Your task to perform on an android device: allow cookies in the chrome app Image 0: 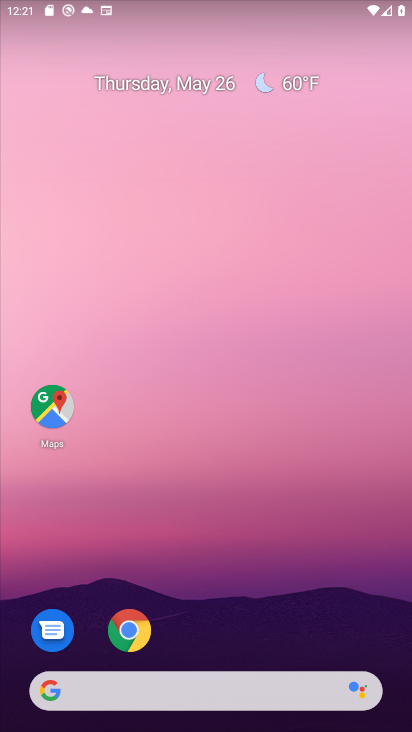
Step 0: drag from (286, 615) to (270, 173)
Your task to perform on an android device: allow cookies in the chrome app Image 1: 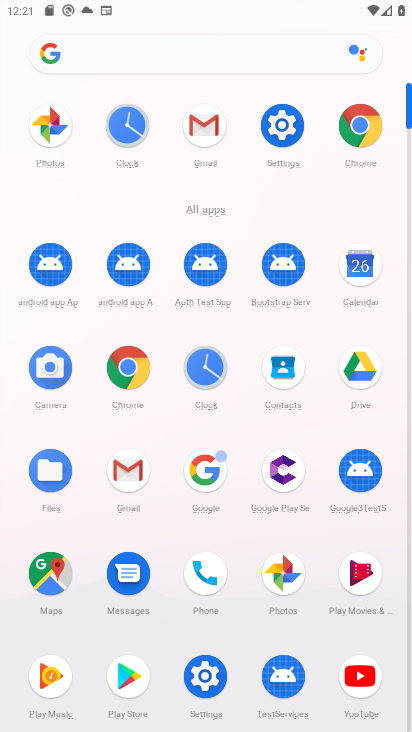
Step 1: click (373, 135)
Your task to perform on an android device: allow cookies in the chrome app Image 2: 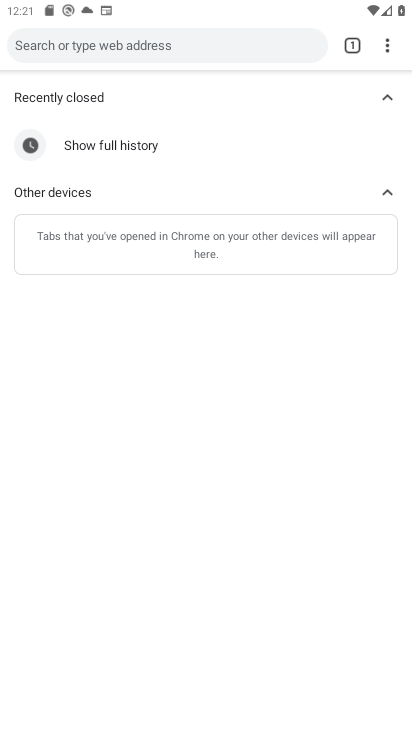
Step 2: drag from (386, 45) to (235, 423)
Your task to perform on an android device: allow cookies in the chrome app Image 3: 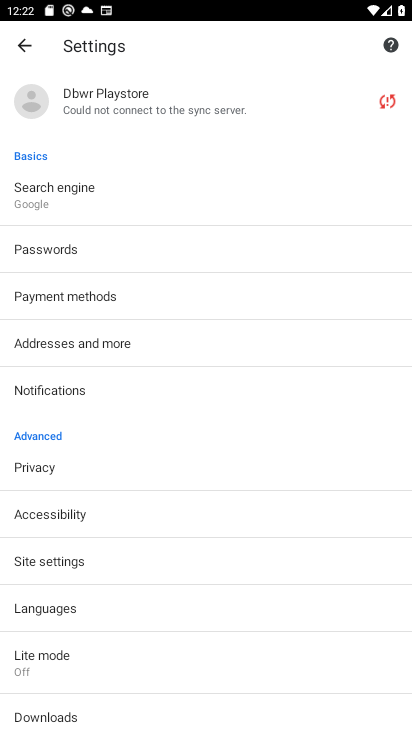
Step 3: click (90, 562)
Your task to perform on an android device: allow cookies in the chrome app Image 4: 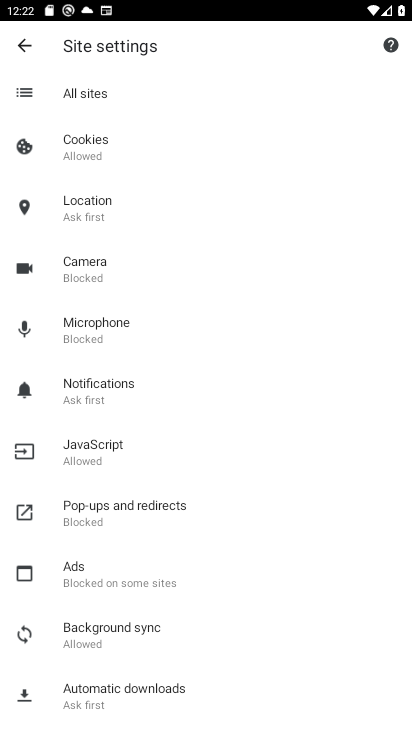
Step 4: click (61, 155)
Your task to perform on an android device: allow cookies in the chrome app Image 5: 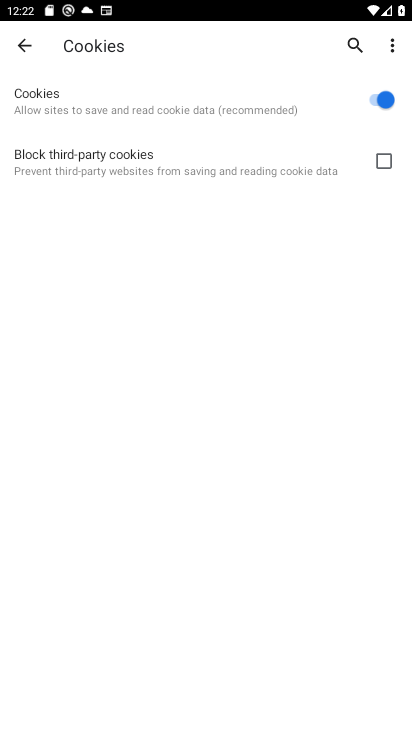
Step 5: task complete